Your task to perform on an android device: change the clock display to digital Image 0: 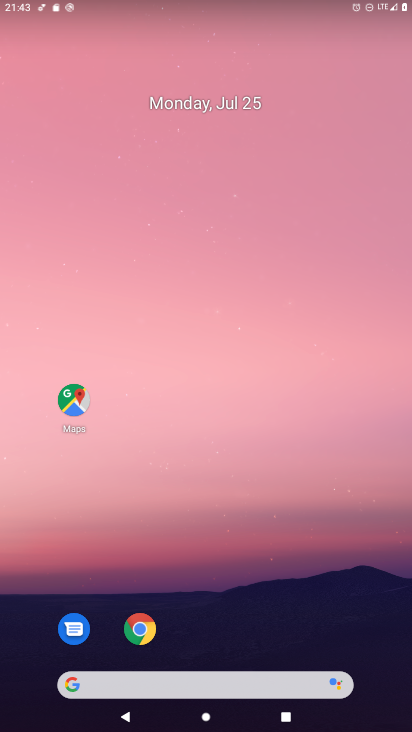
Step 0: drag from (195, 683) to (145, 153)
Your task to perform on an android device: change the clock display to digital Image 1: 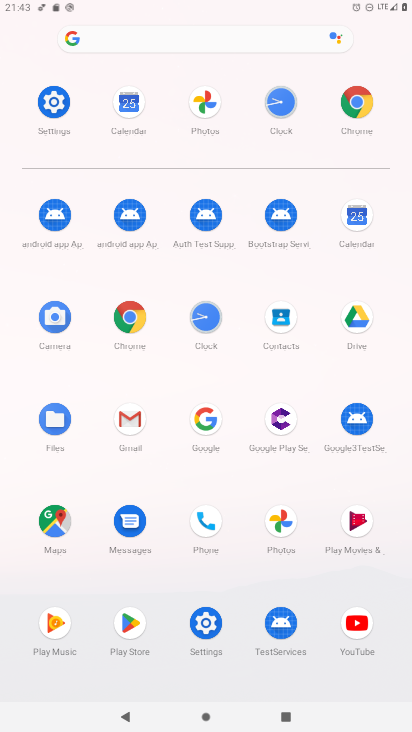
Step 1: click (283, 103)
Your task to perform on an android device: change the clock display to digital Image 2: 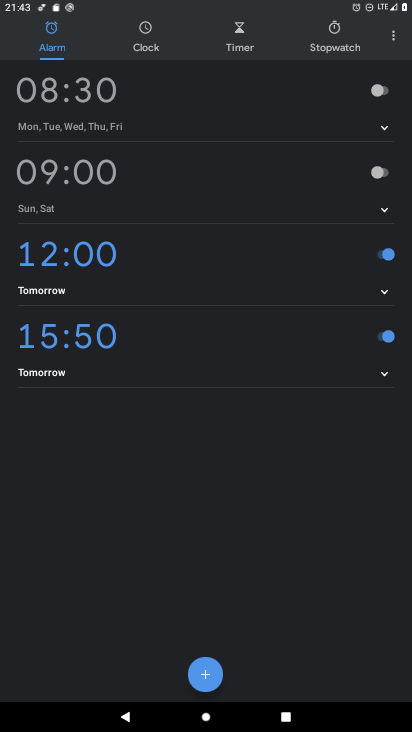
Step 2: click (393, 37)
Your task to perform on an android device: change the clock display to digital Image 3: 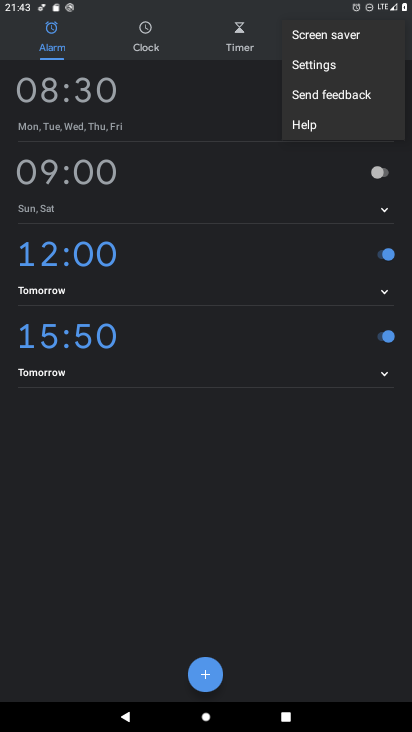
Step 3: click (323, 64)
Your task to perform on an android device: change the clock display to digital Image 4: 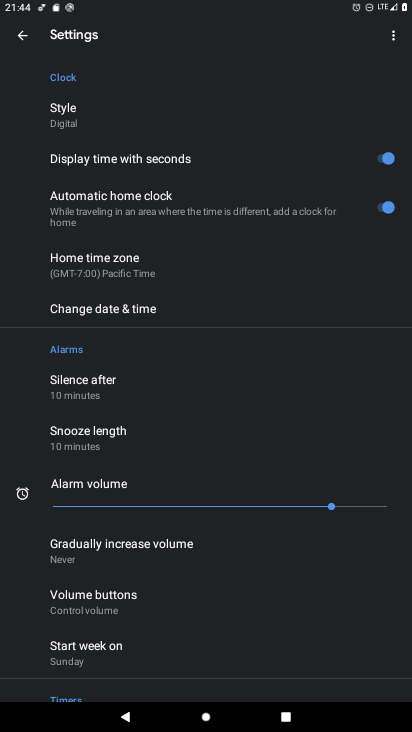
Step 4: task complete